Your task to perform on an android device: open a bookmark in the chrome app Image 0: 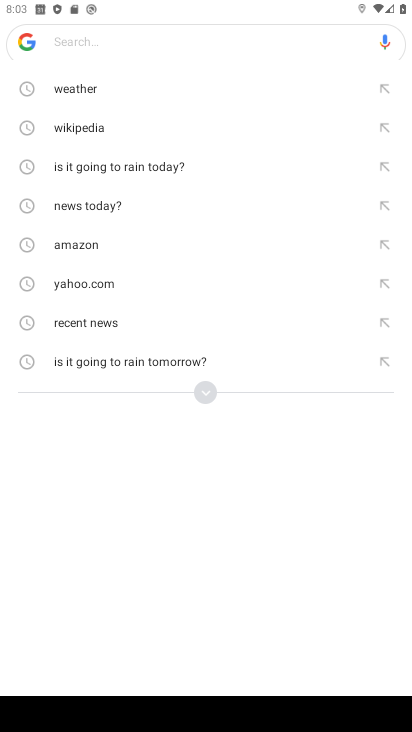
Step 0: press home button
Your task to perform on an android device: open a bookmark in the chrome app Image 1: 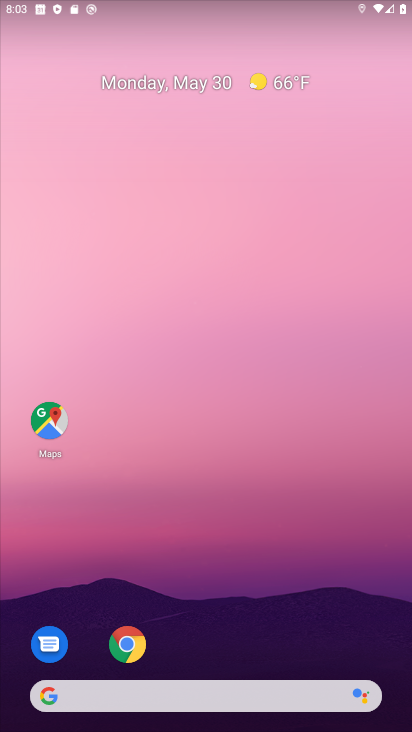
Step 1: click (124, 649)
Your task to perform on an android device: open a bookmark in the chrome app Image 2: 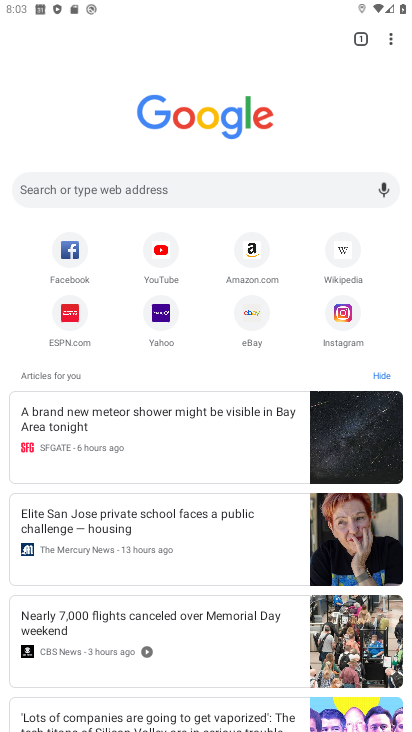
Step 2: click (387, 37)
Your task to perform on an android device: open a bookmark in the chrome app Image 3: 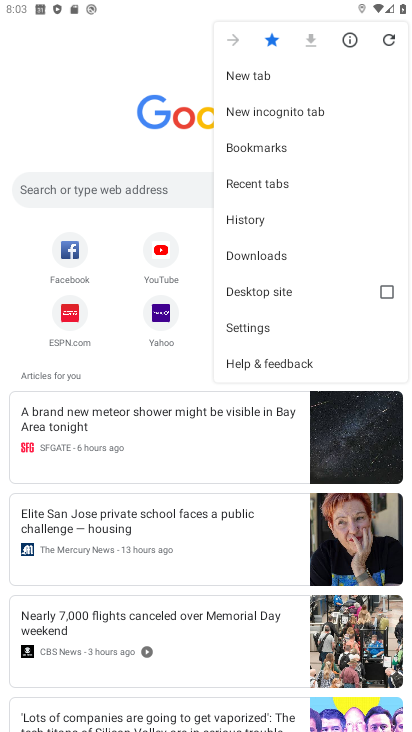
Step 3: click (275, 148)
Your task to perform on an android device: open a bookmark in the chrome app Image 4: 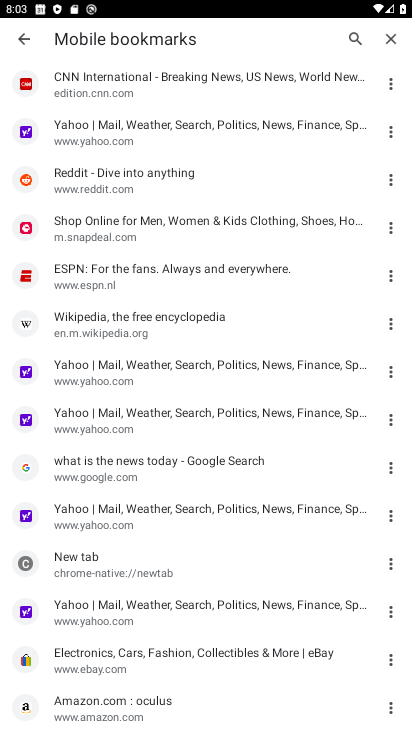
Step 4: click (80, 137)
Your task to perform on an android device: open a bookmark in the chrome app Image 5: 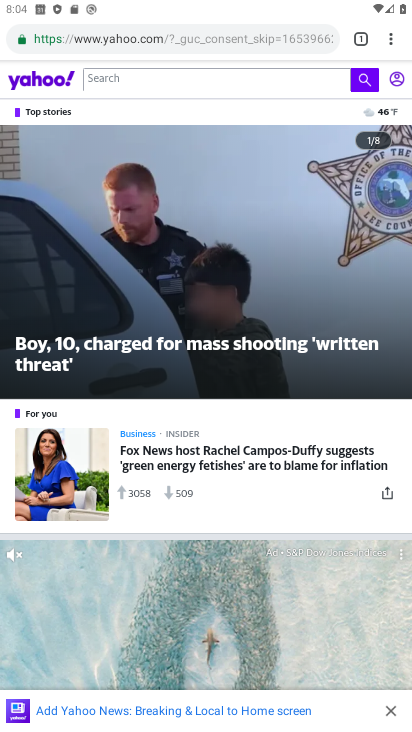
Step 5: task complete